Your task to perform on an android device: check storage Image 0: 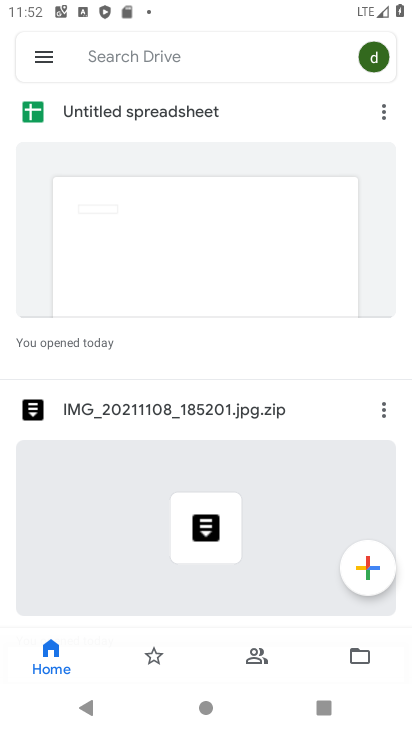
Step 0: press home button
Your task to perform on an android device: check storage Image 1: 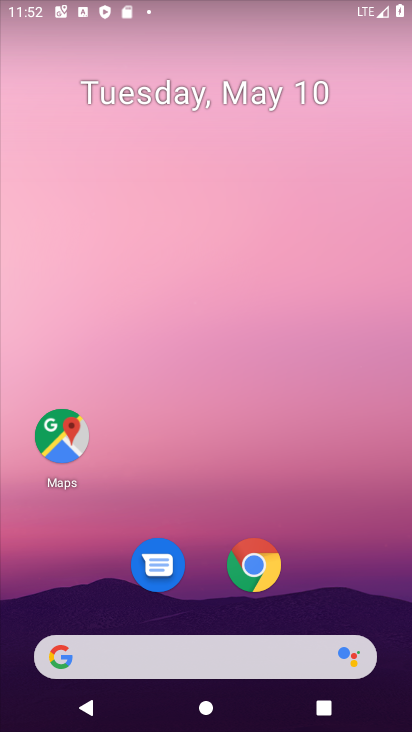
Step 1: drag from (169, 617) to (110, 110)
Your task to perform on an android device: check storage Image 2: 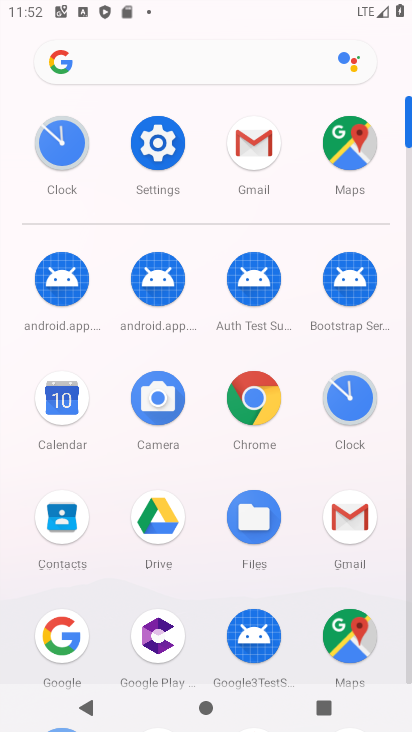
Step 2: click (152, 166)
Your task to perform on an android device: check storage Image 3: 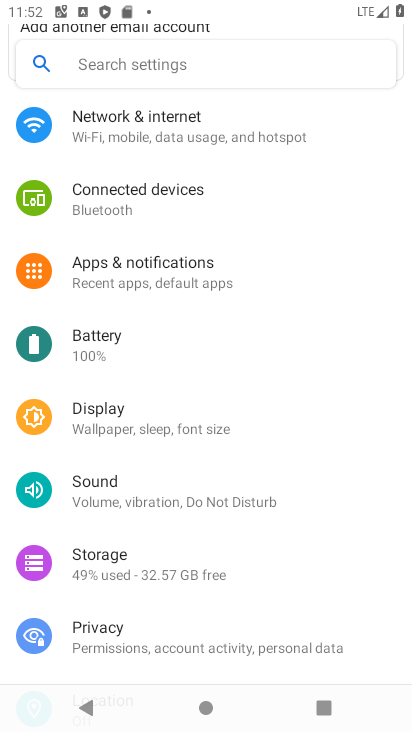
Step 3: click (144, 558)
Your task to perform on an android device: check storage Image 4: 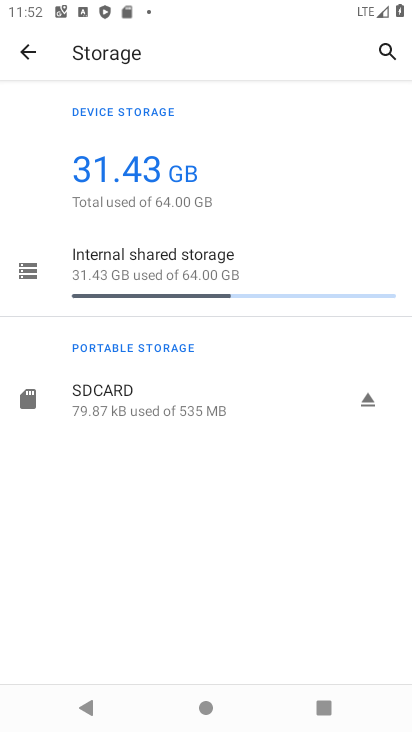
Step 4: click (126, 272)
Your task to perform on an android device: check storage Image 5: 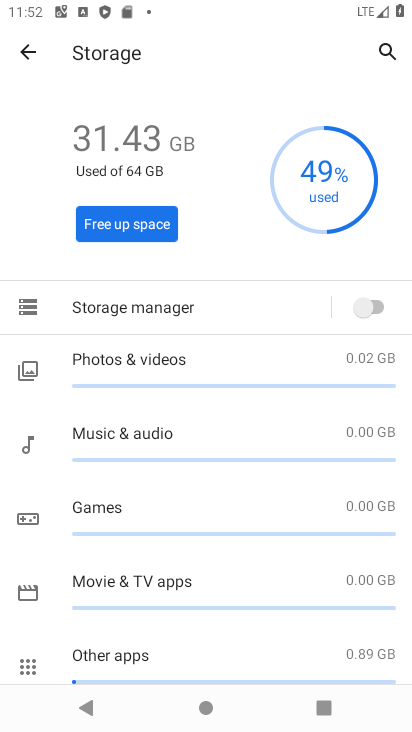
Step 5: task complete